Your task to perform on an android device: open a bookmark in the chrome app Image 0: 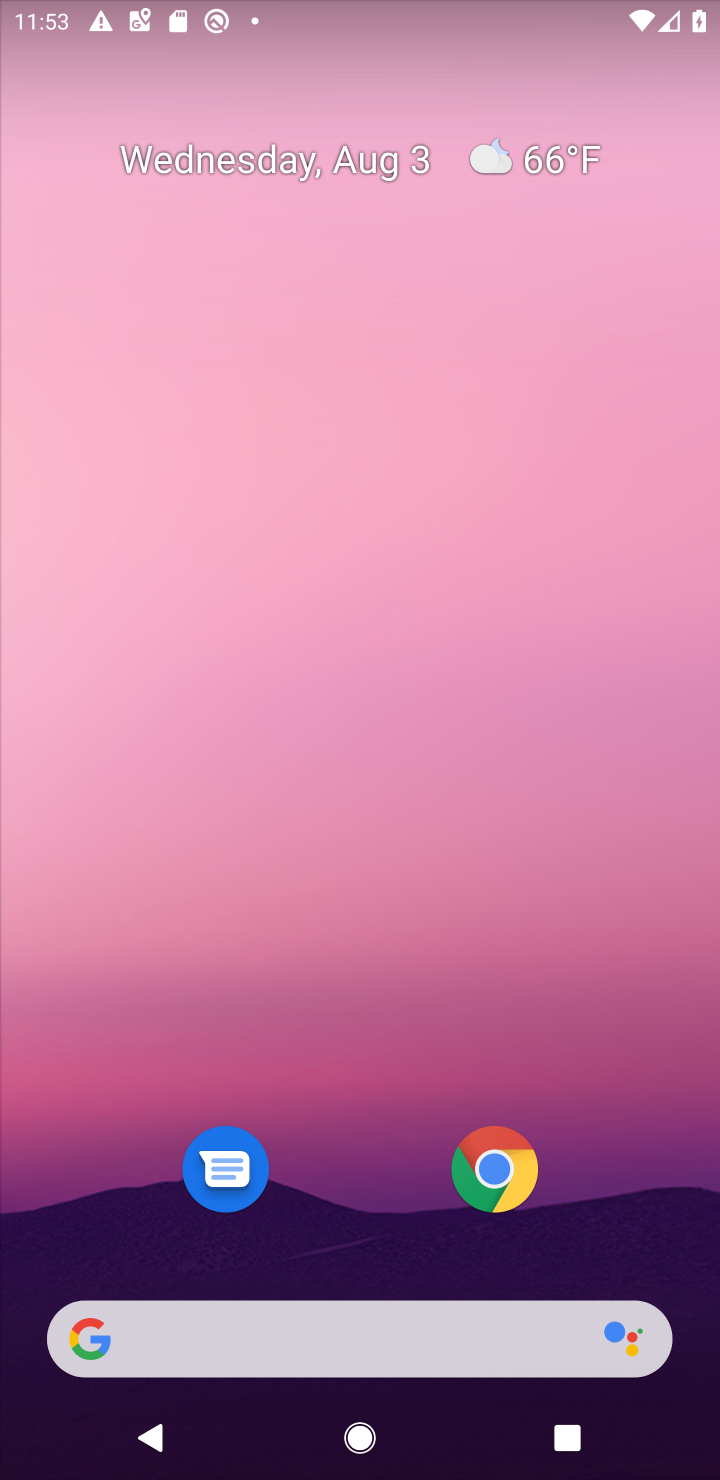
Step 0: click (508, 1166)
Your task to perform on an android device: open a bookmark in the chrome app Image 1: 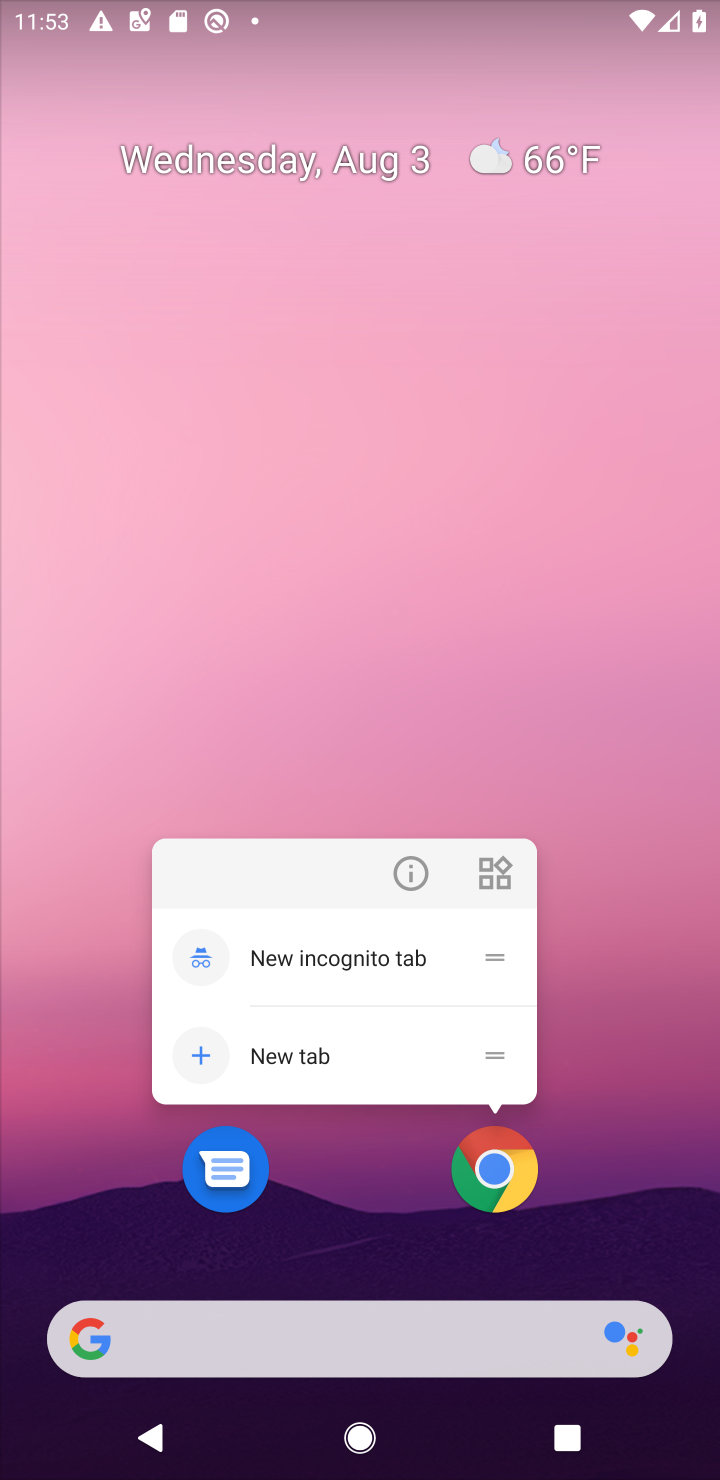
Step 1: click (499, 1176)
Your task to perform on an android device: open a bookmark in the chrome app Image 2: 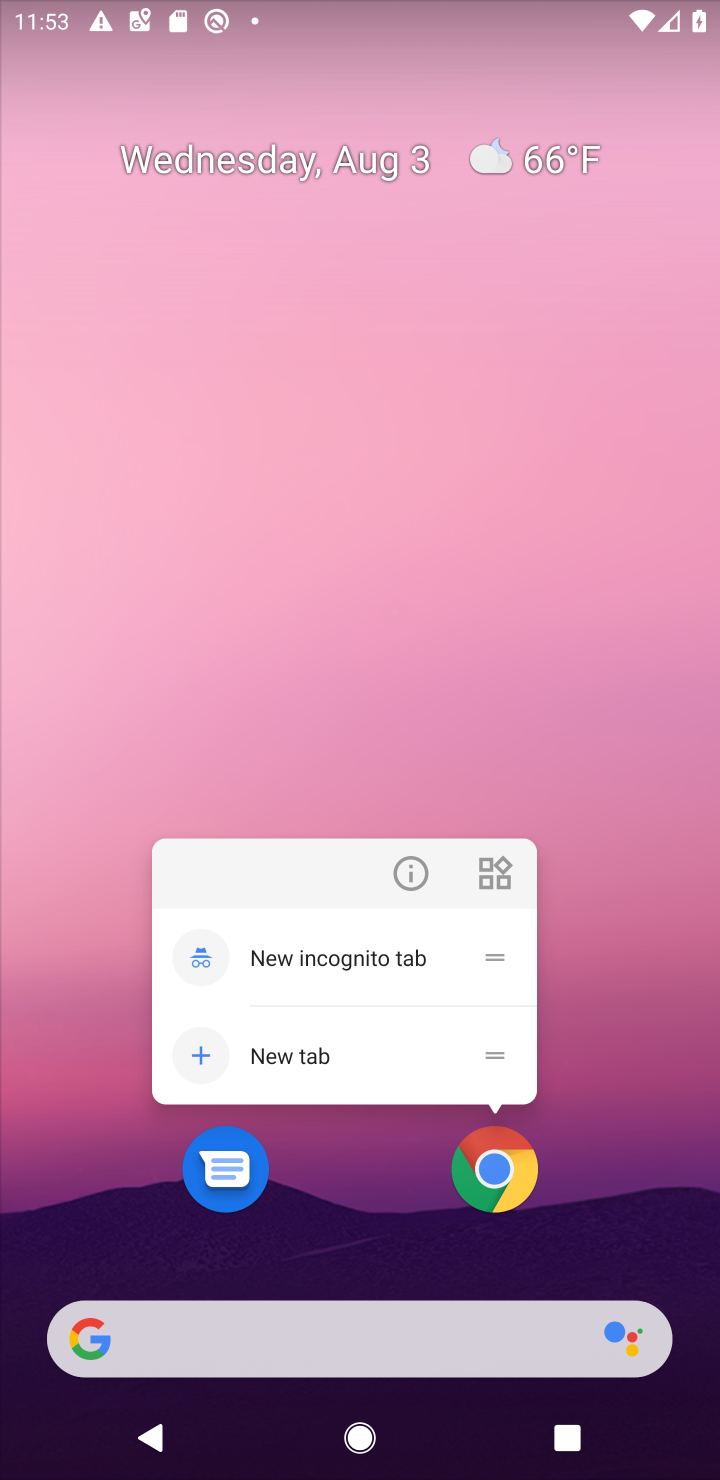
Step 2: click (499, 1176)
Your task to perform on an android device: open a bookmark in the chrome app Image 3: 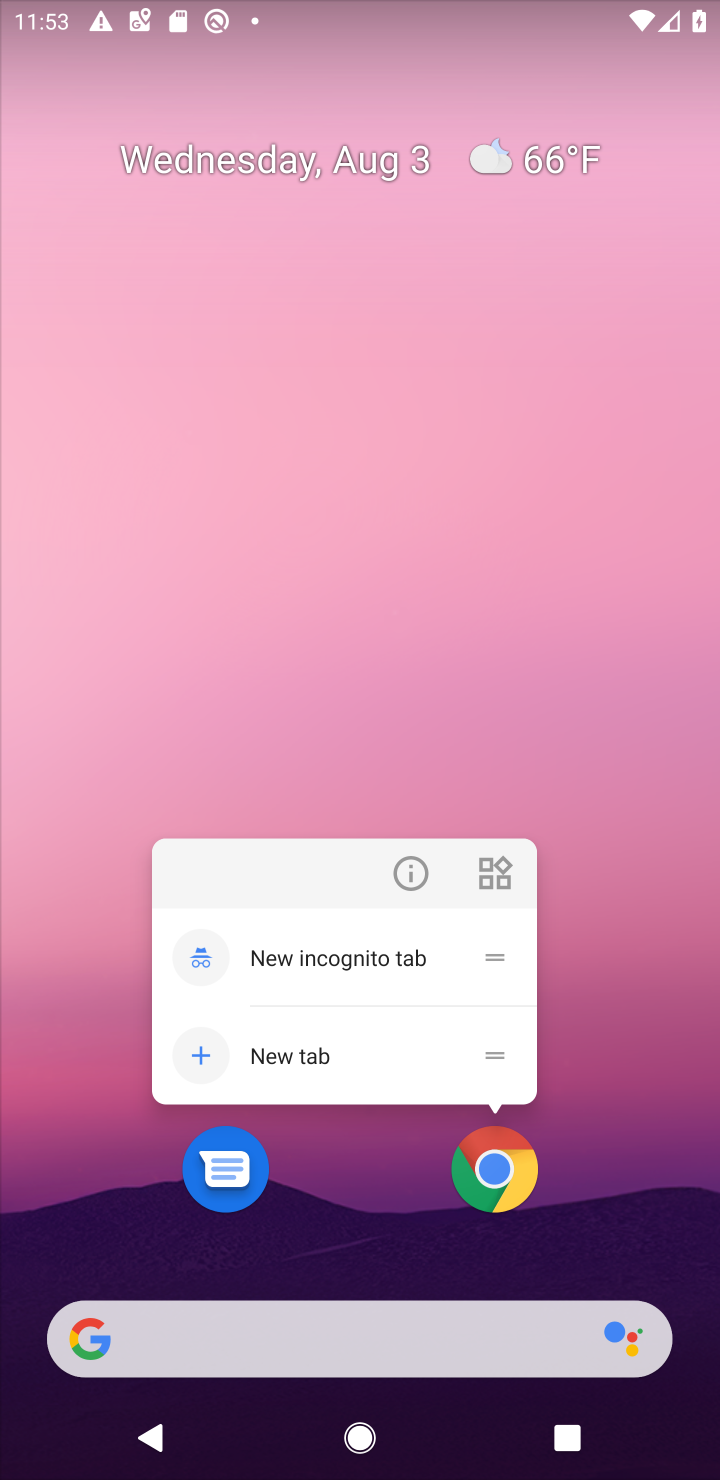
Step 3: click (499, 1182)
Your task to perform on an android device: open a bookmark in the chrome app Image 4: 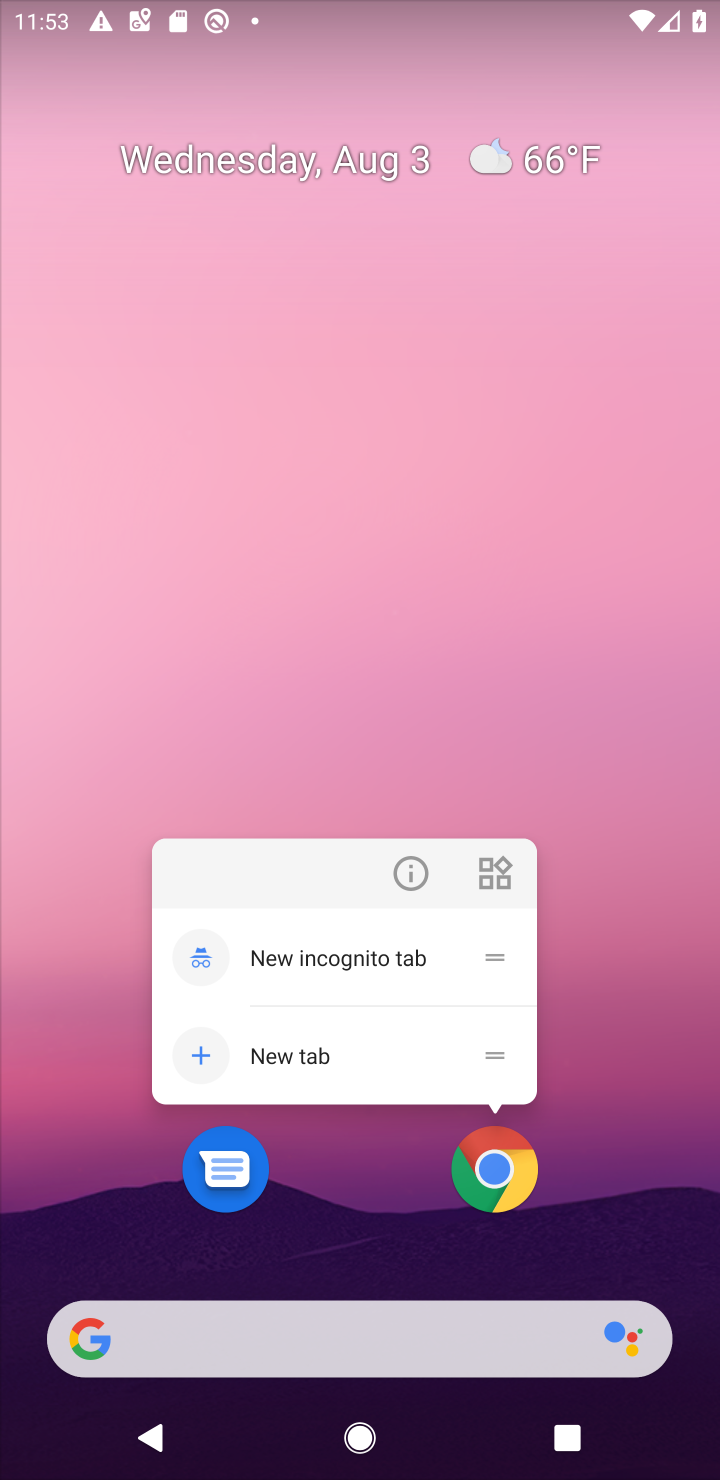
Step 4: click (499, 1182)
Your task to perform on an android device: open a bookmark in the chrome app Image 5: 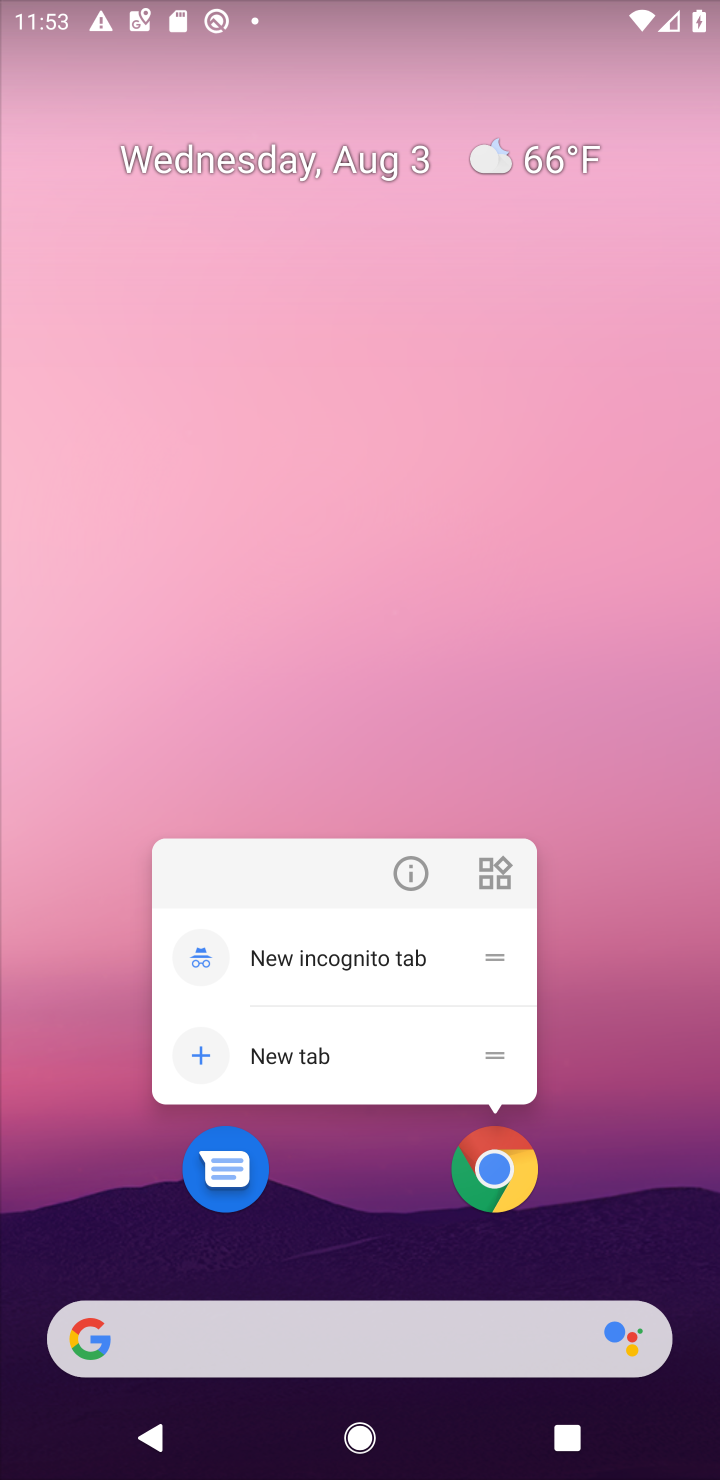
Step 5: click (499, 1182)
Your task to perform on an android device: open a bookmark in the chrome app Image 6: 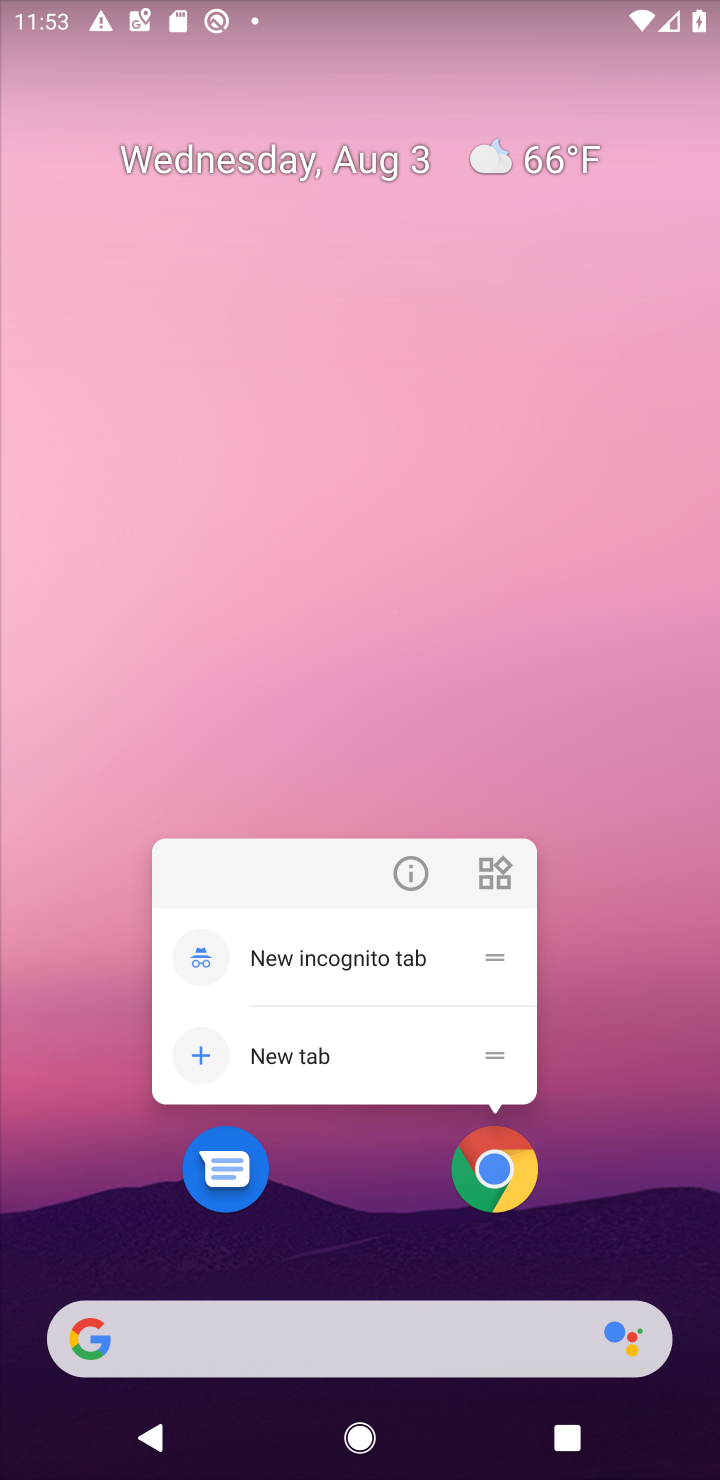
Step 6: click (505, 1174)
Your task to perform on an android device: open a bookmark in the chrome app Image 7: 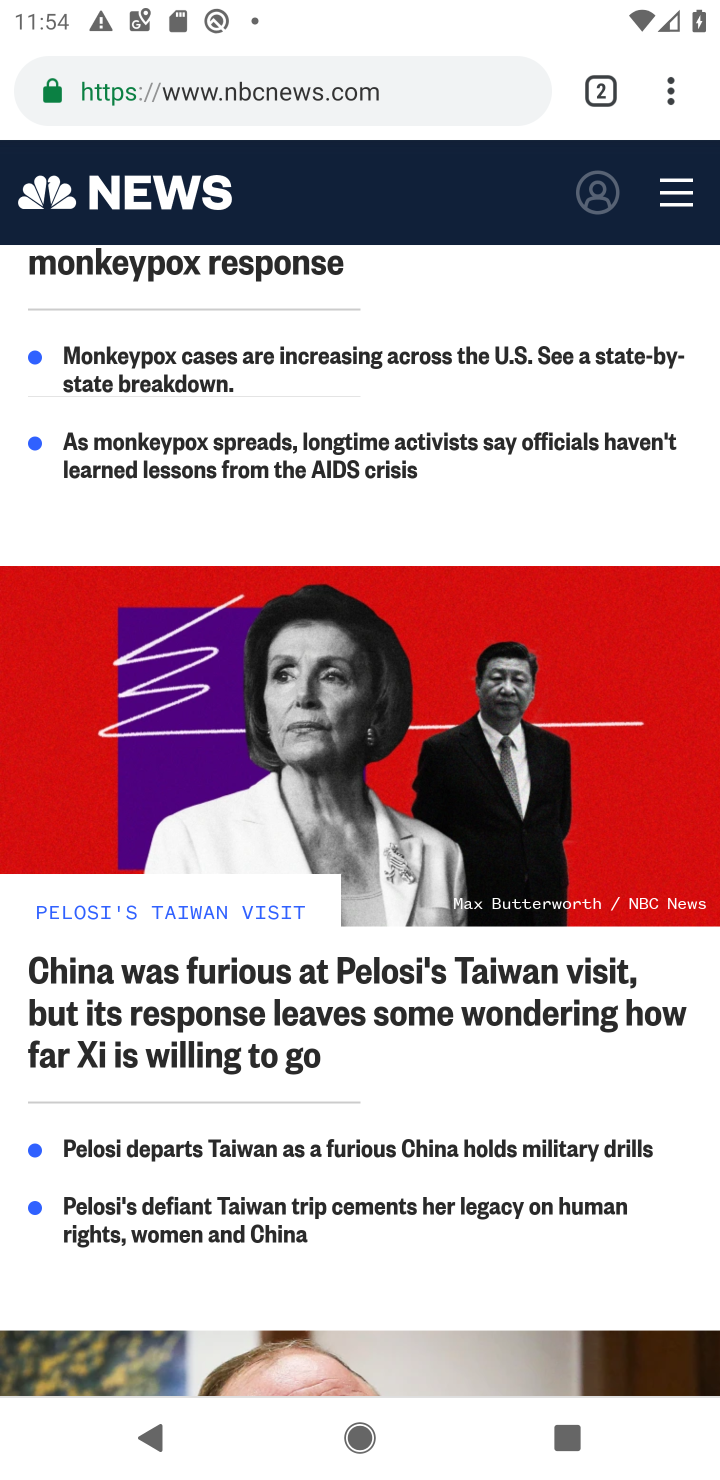
Step 7: drag from (672, 89) to (346, 355)
Your task to perform on an android device: open a bookmark in the chrome app Image 8: 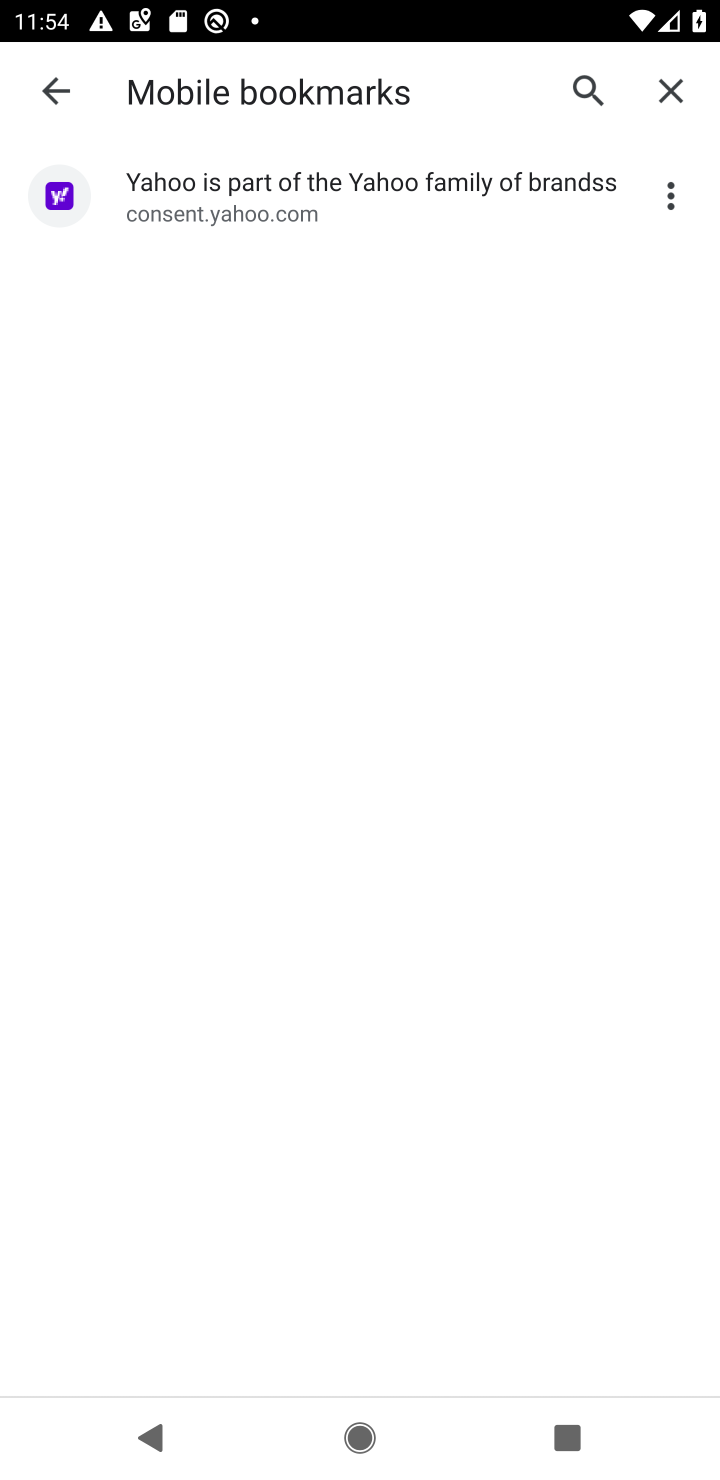
Step 8: click (239, 207)
Your task to perform on an android device: open a bookmark in the chrome app Image 9: 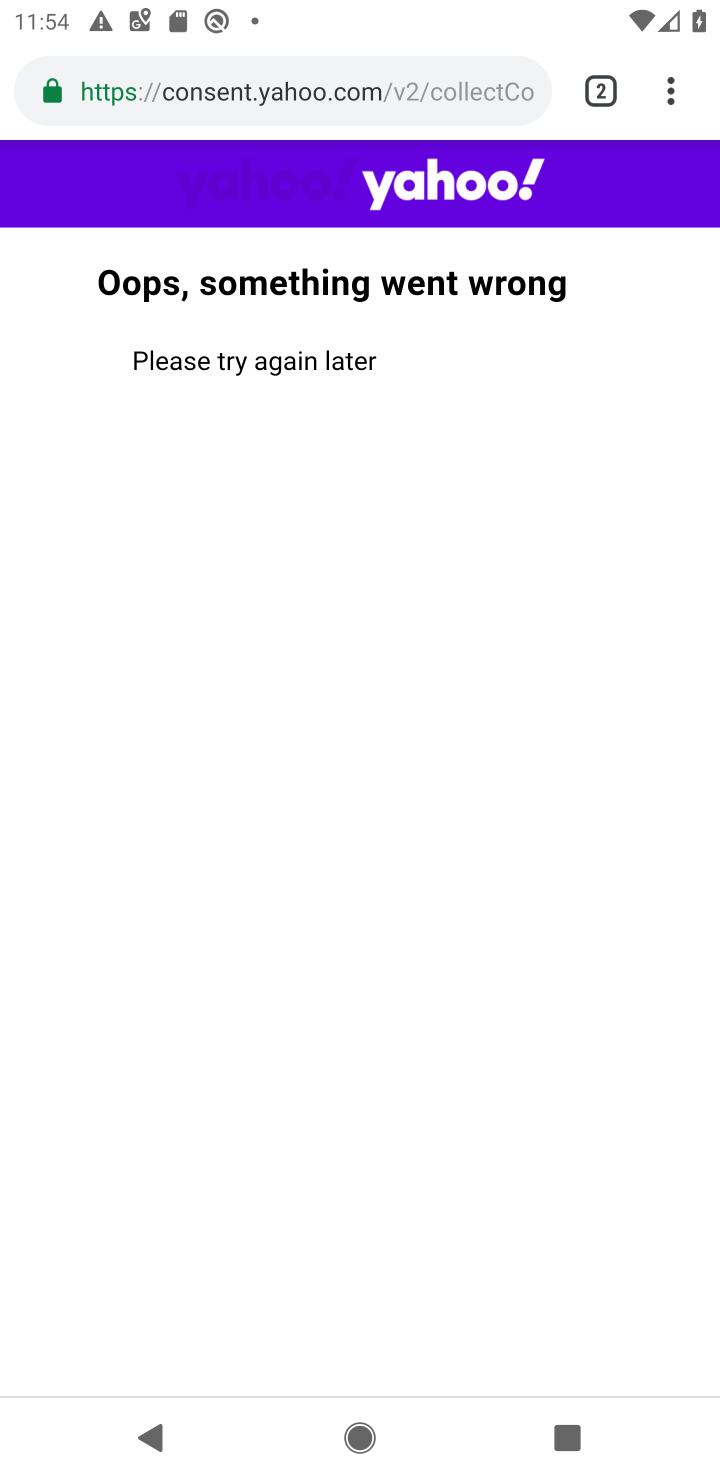
Step 9: task complete